Your task to perform on an android device: Go to Google maps Image 0: 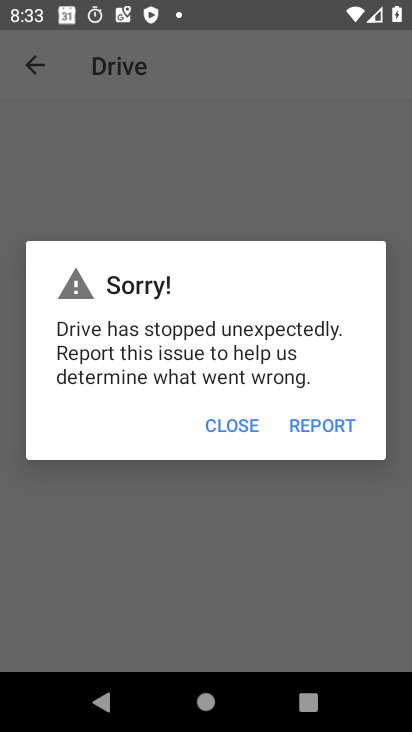
Step 0: press back button
Your task to perform on an android device: Go to Google maps Image 1: 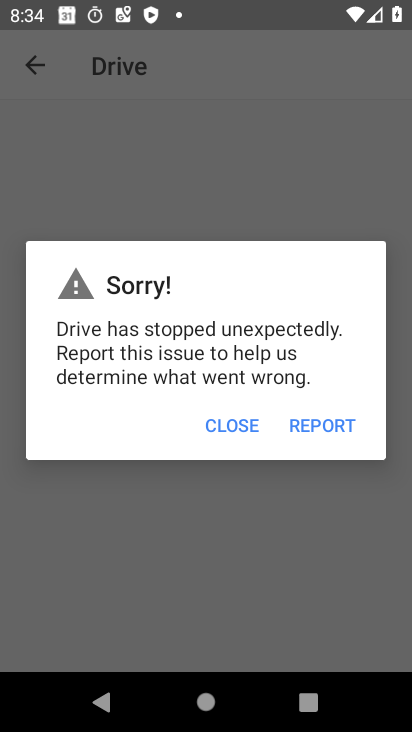
Step 1: press back button
Your task to perform on an android device: Go to Google maps Image 2: 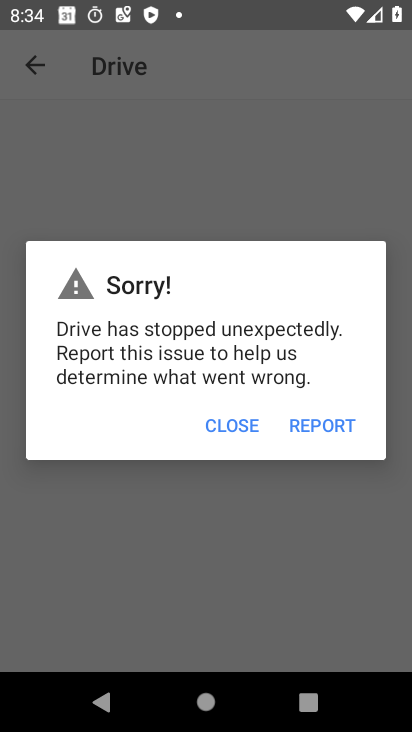
Step 2: press home button
Your task to perform on an android device: Go to Google maps Image 3: 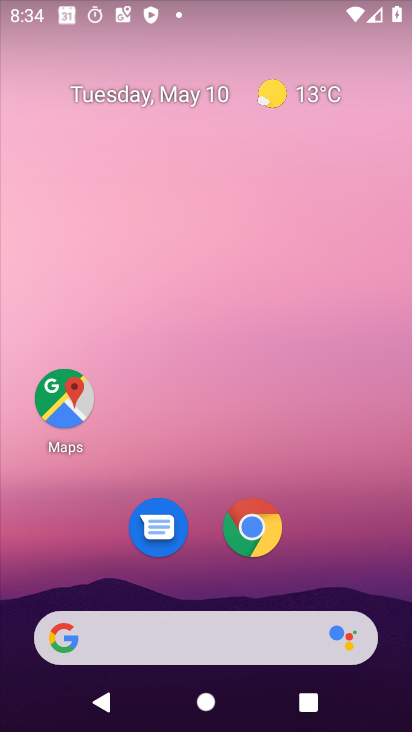
Step 3: click (60, 399)
Your task to perform on an android device: Go to Google maps Image 4: 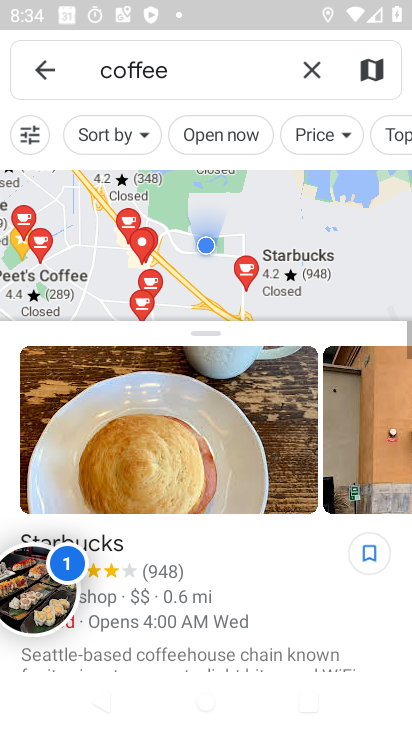
Step 4: click (318, 71)
Your task to perform on an android device: Go to Google maps Image 5: 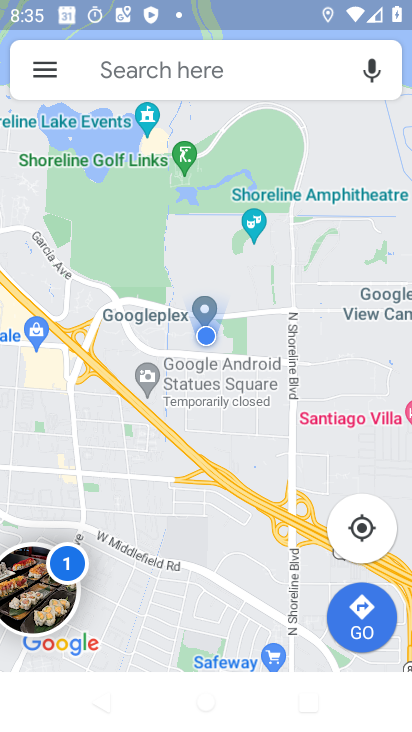
Step 5: task complete